Your task to perform on an android device: turn on airplane mode Image 0: 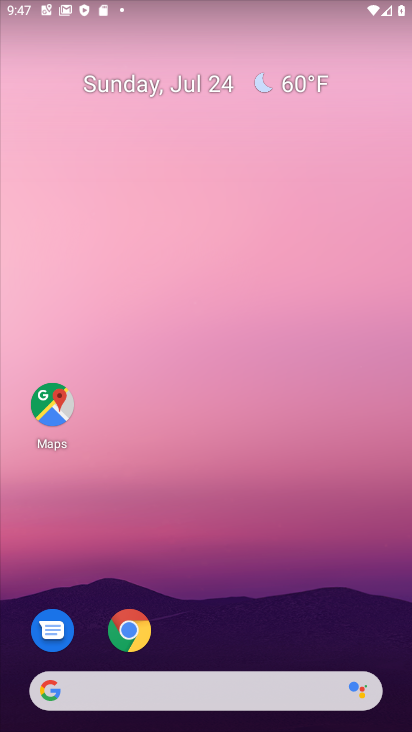
Step 0: drag from (226, 651) to (210, 54)
Your task to perform on an android device: turn on airplane mode Image 1: 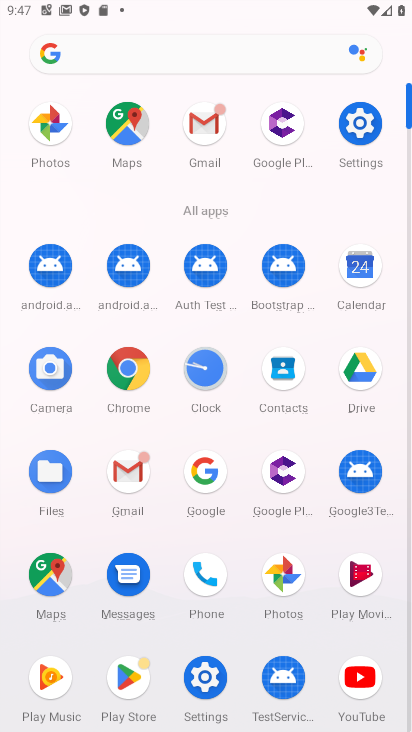
Step 1: click (358, 149)
Your task to perform on an android device: turn on airplane mode Image 2: 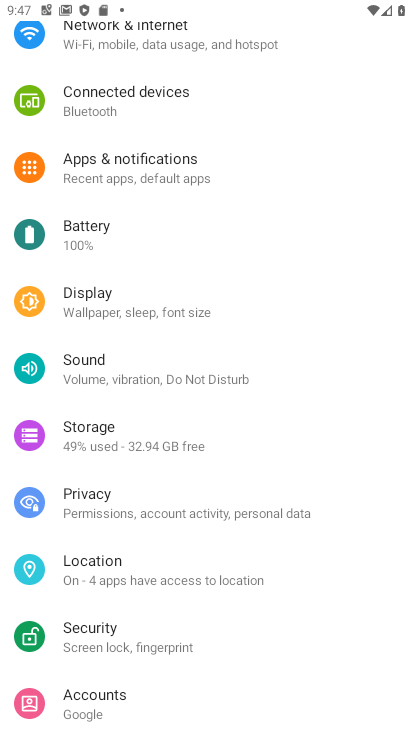
Step 2: drag from (197, 151) to (182, 502)
Your task to perform on an android device: turn on airplane mode Image 3: 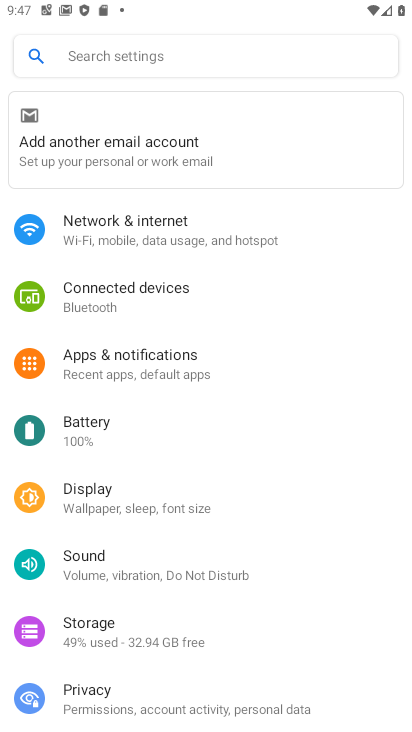
Step 3: click (134, 241)
Your task to perform on an android device: turn on airplane mode Image 4: 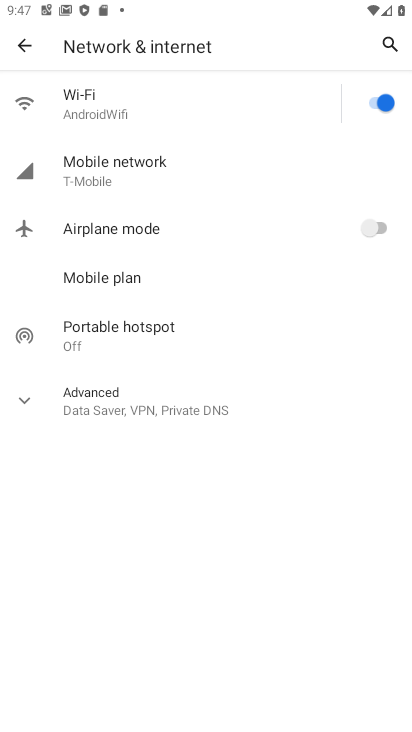
Step 4: click (397, 226)
Your task to perform on an android device: turn on airplane mode Image 5: 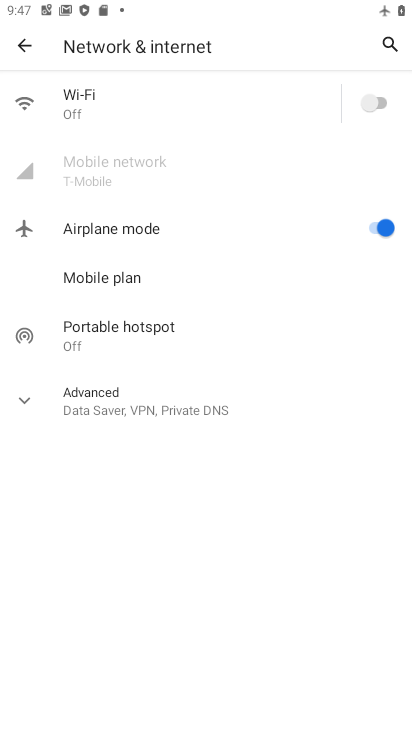
Step 5: task complete